Your task to perform on an android device: Go to Android settings Image 0: 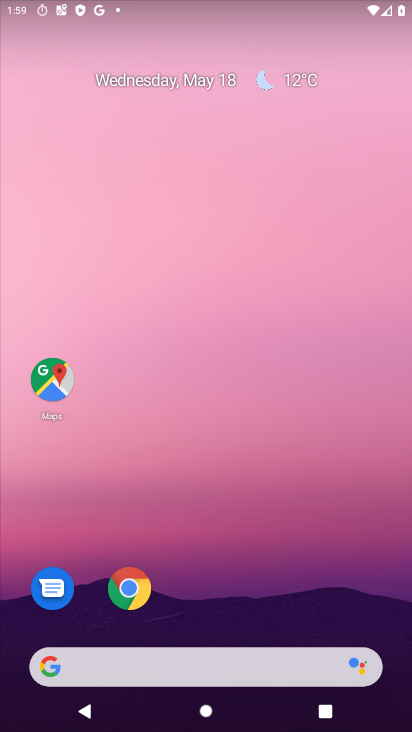
Step 0: drag from (157, 556) to (252, 17)
Your task to perform on an android device: Go to Android settings Image 1: 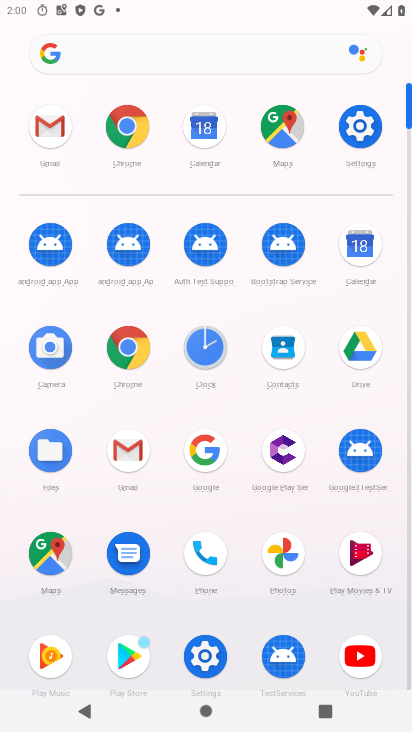
Step 1: click (359, 120)
Your task to perform on an android device: Go to Android settings Image 2: 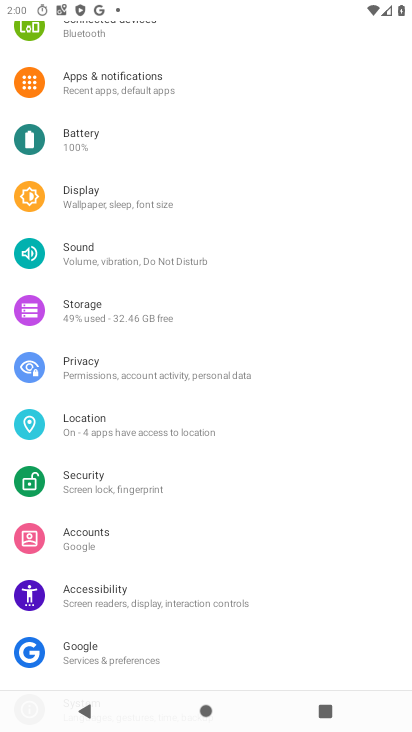
Step 2: drag from (186, 623) to (288, 76)
Your task to perform on an android device: Go to Android settings Image 3: 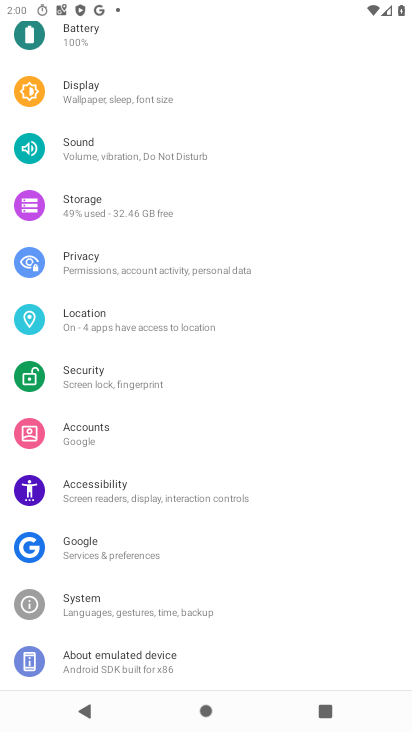
Step 3: click (118, 658)
Your task to perform on an android device: Go to Android settings Image 4: 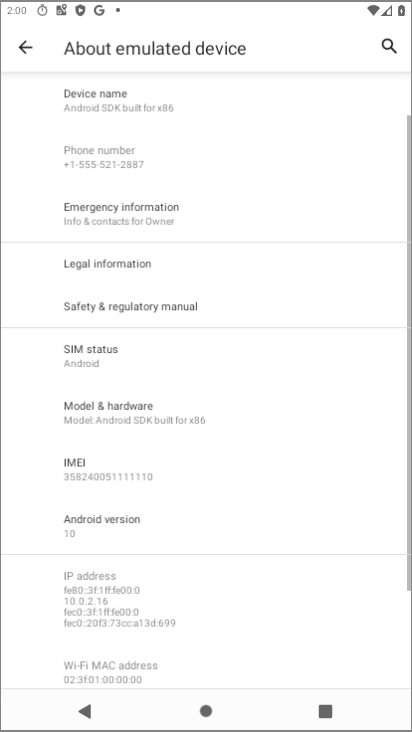
Step 4: drag from (118, 657) to (222, 19)
Your task to perform on an android device: Go to Android settings Image 5: 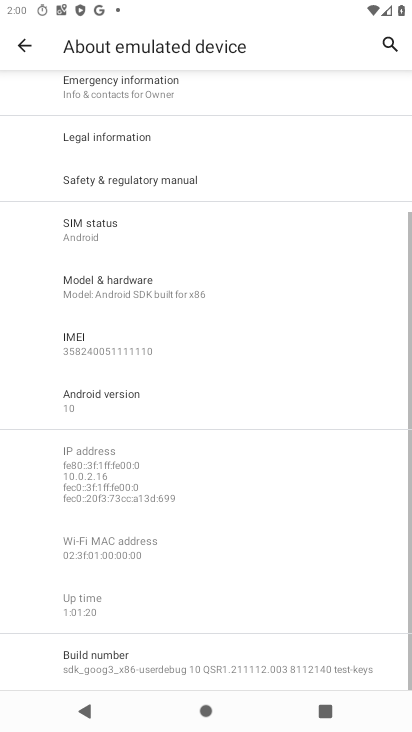
Step 5: click (116, 407)
Your task to perform on an android device: Go to Android settings Image 6: 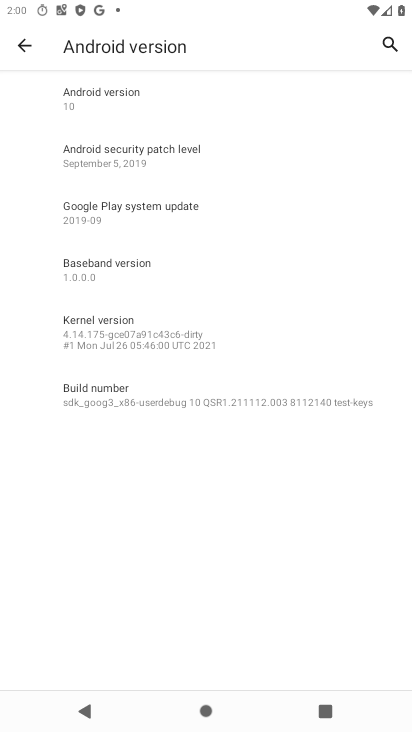
Step 6: task complete